Your task to perform on an android device: Go to Reddit.com Image 0: 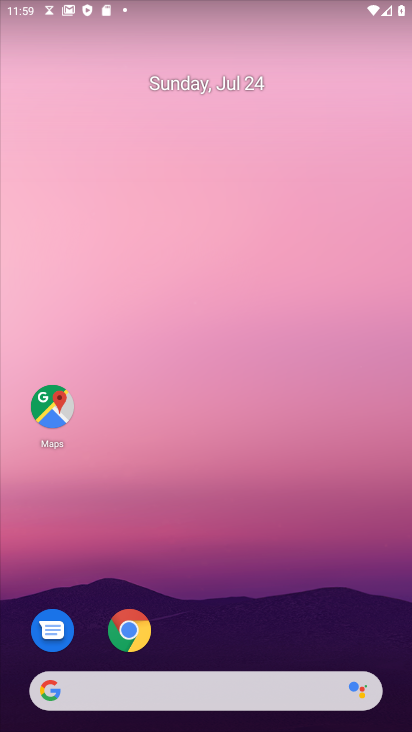
Step 0: press home button
Your task to perform on an android device: Go to Reddit.com Image 1: 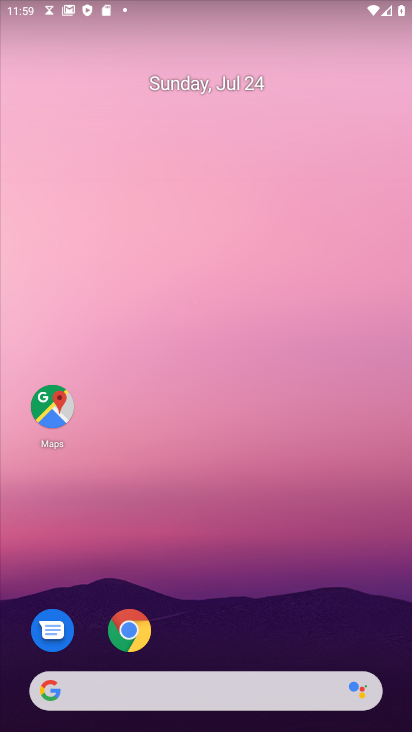
Step 1: click (37, 687)
Your task to perform on an android device: Go to Reddit.com Image 2: 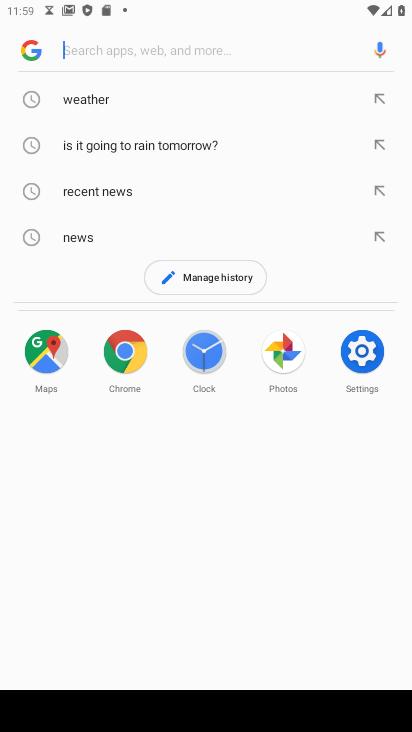
Step 2: type "Reddit.com"
Your task to perform on an android device: Go to Reddit.com Image 3: 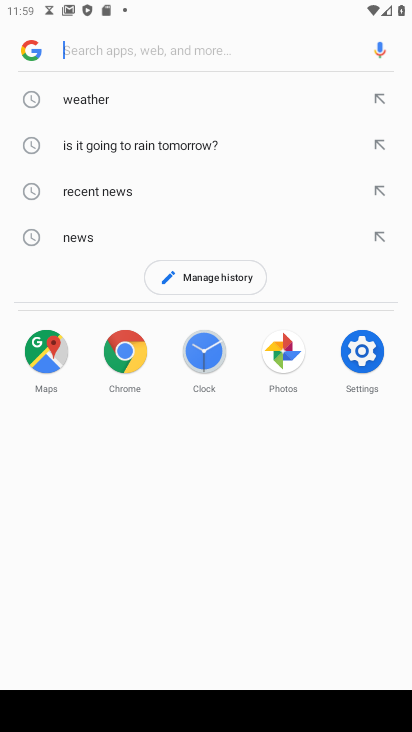
Step 3: click (96, 42)
Your task to perform on an android device: Go to Reddit.com Image 4: 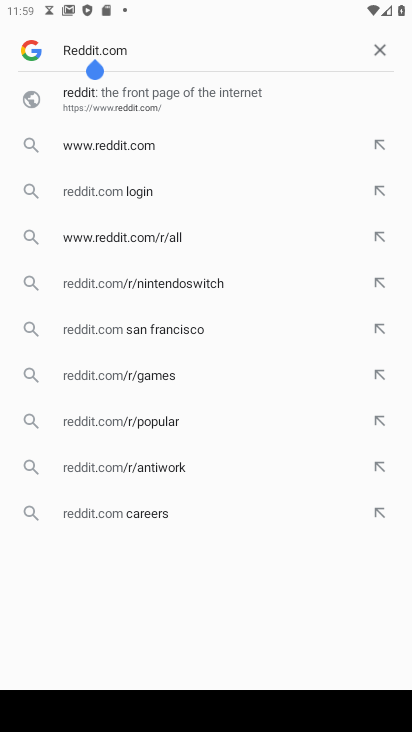
Step 4: click (92, 48)
Your task to perform on an android device: Go to Reddit.com Image 5: 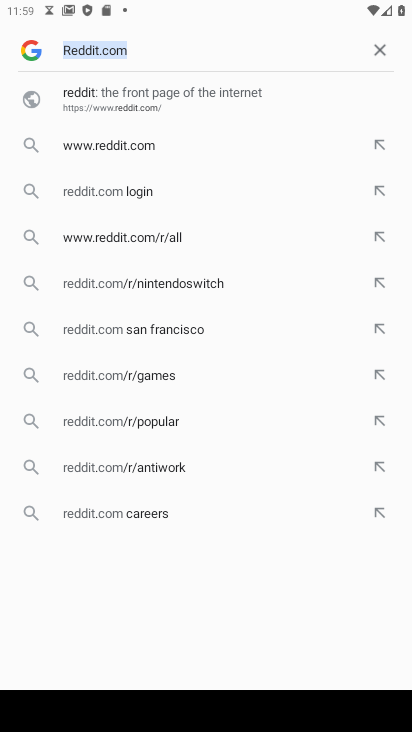
Step 5: click (168, 57)
Your task to perform on an android device: Go to Reddit.com Image 6: 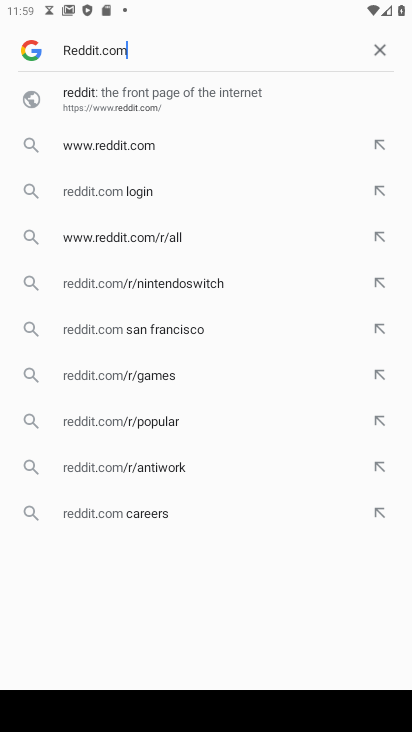
Step 6: press enter
Your task to perform on an android device: Go to Reddit.com Image 7: 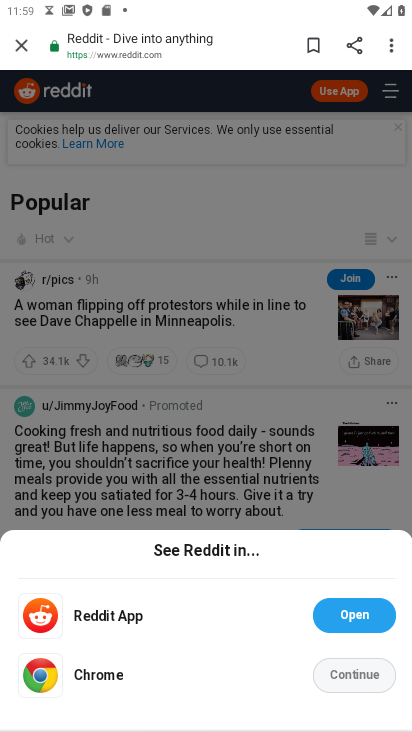
Step 7: task complete